Your task to perform on an android device: turn off airplane mode Image 0: 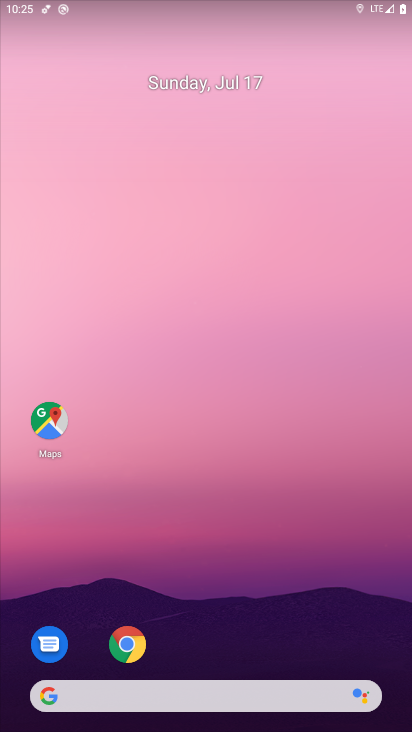
Step 0: press home button
Your task to perform on an android device: turn off airplane mode Image 1: 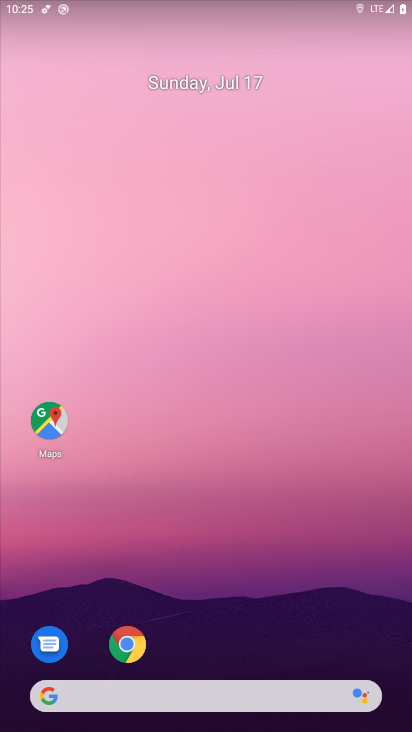
Step 1: task complete